Your task to perform on an android device: open app "LiveIn - Share Your Moment" (install if not already installed) Image 0: 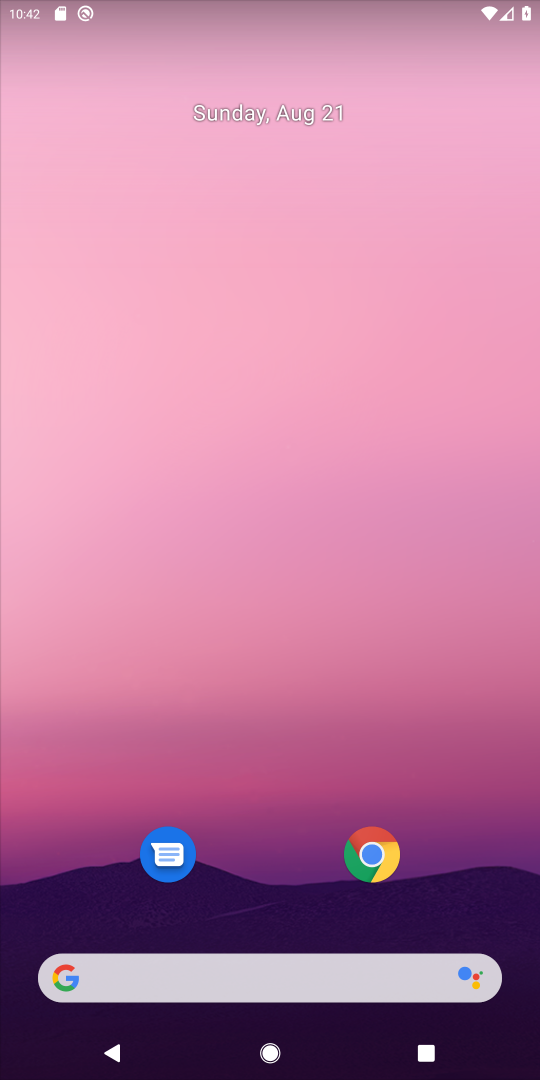
Step 0: drag from (297, 911) to (343, 152)
Your task to perform on an android device: open app "LiveIn - Share Your Moment" (install if not already installed) Image 1: 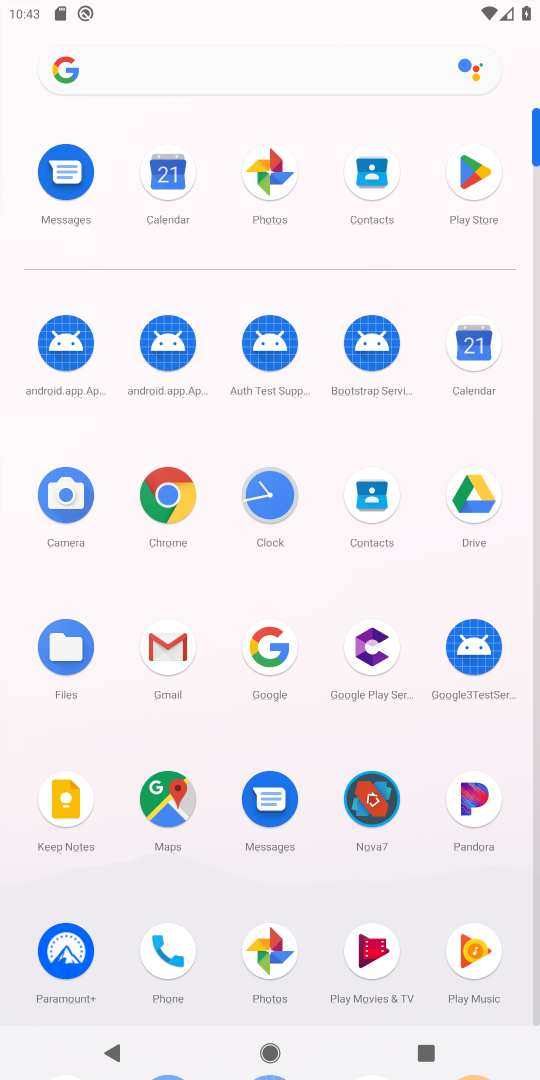
Step 1: click (472, 158)
Your task to perform on an android device: open app "LiveIn - Share Your Moment" (install if not already installed) Image 2: 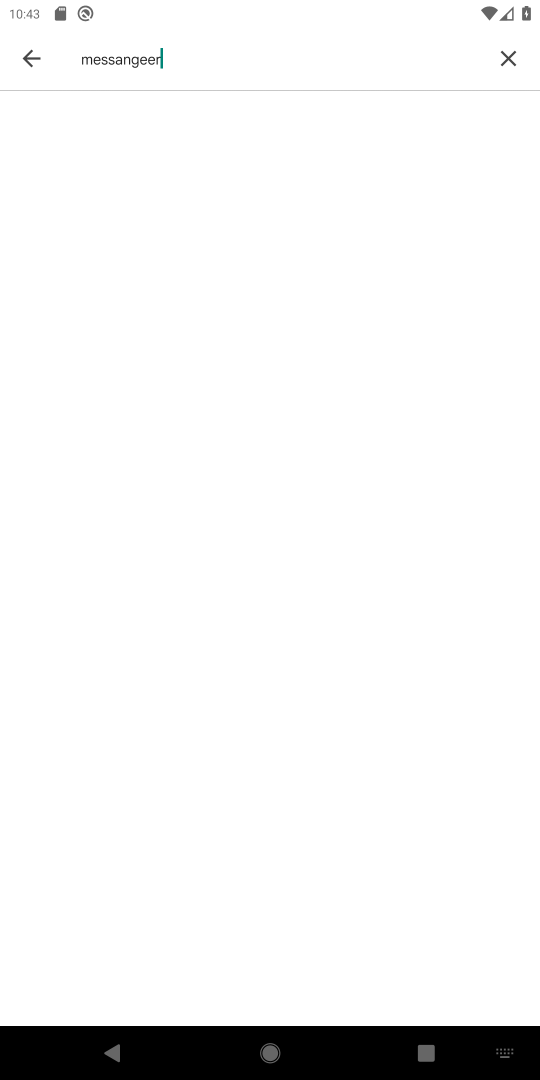
Step 2: click (492, 65)
Your task to perform on an android device: open app "LiveIn - Share Your Moment" (install if not already installed) Image 3: 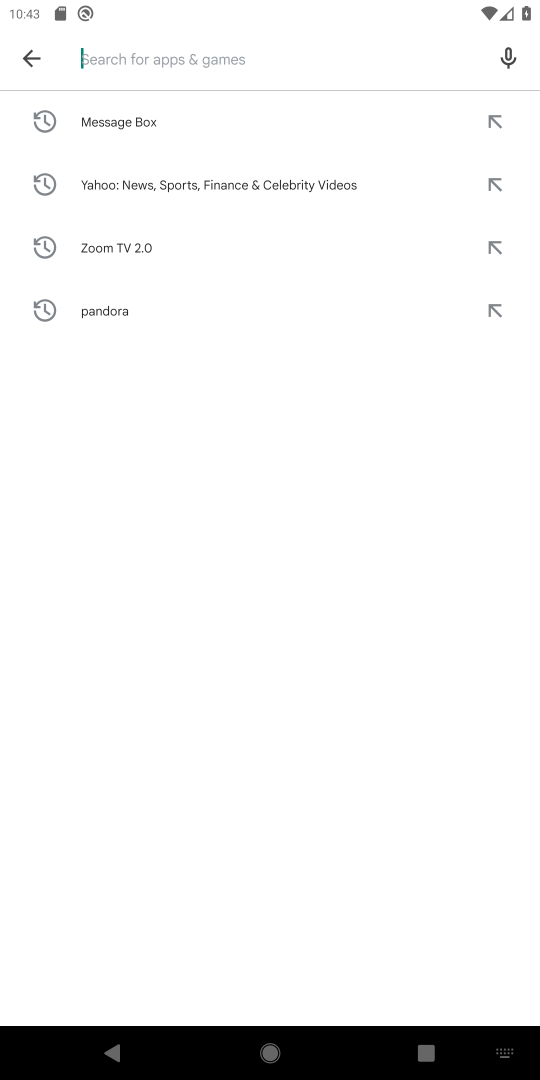
Step 3: type "livein"
Your task to perform on an android device: open app "LiveIn - Share Your Moment" (install if not already installed) Image 4: 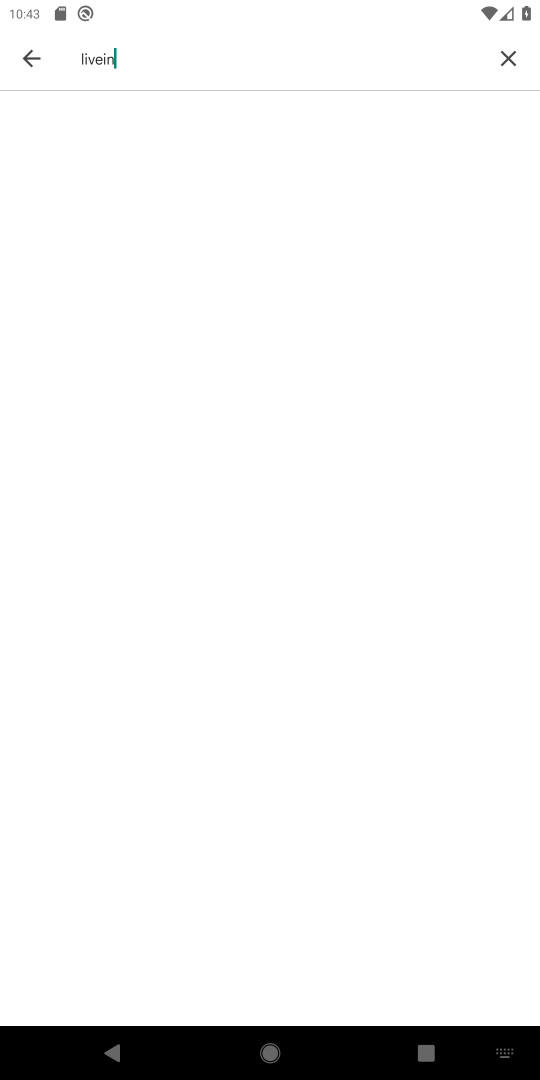
Step 4: task complete